Your task to perform on an android device: delete location history Image 0: 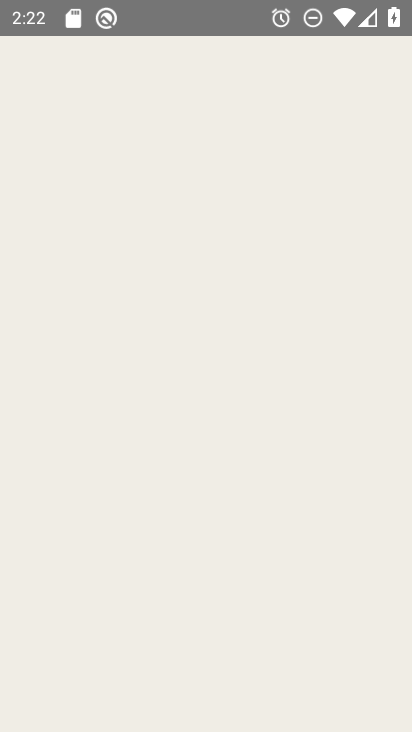
Step 0: press home button
Your task to perform on an android device: delete location history Image 1: 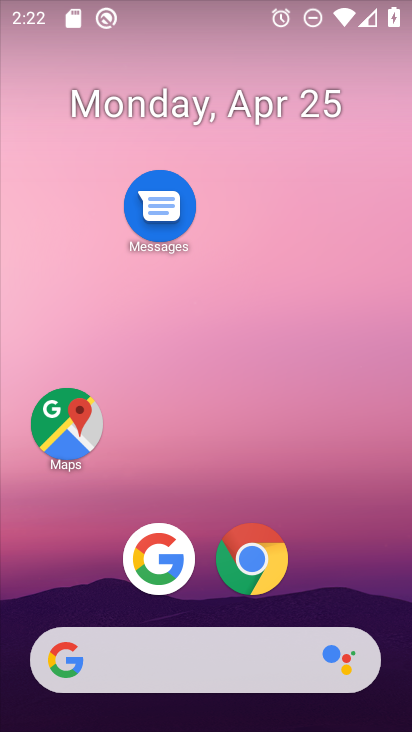
Step 1: drag from (203, 579) to (270, 260)
Your task to perform on an android device: delete location history Image 2: 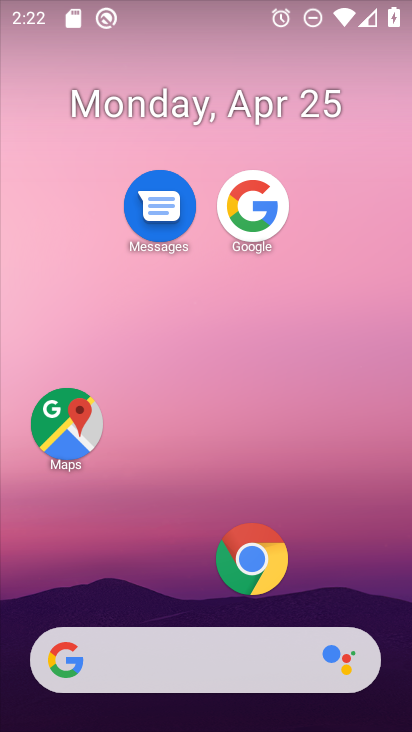
Step 2: drag from (183, 551) to (221, 121)
Your task to perform on an android device: delete location history Image 3: 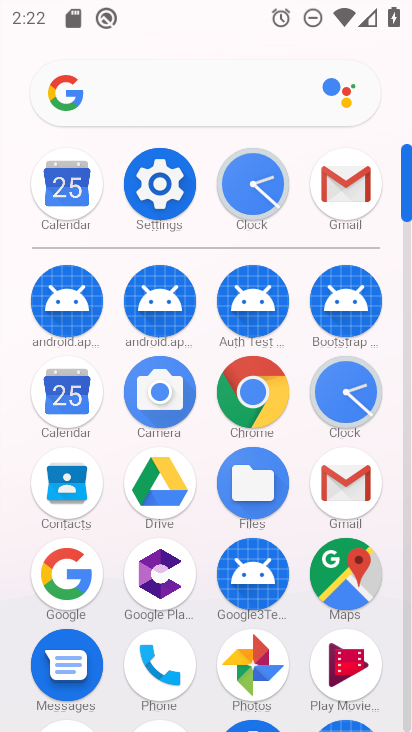
Step 3: click (156, 185)
Your task to perform on an android device: delete location history Image 4: 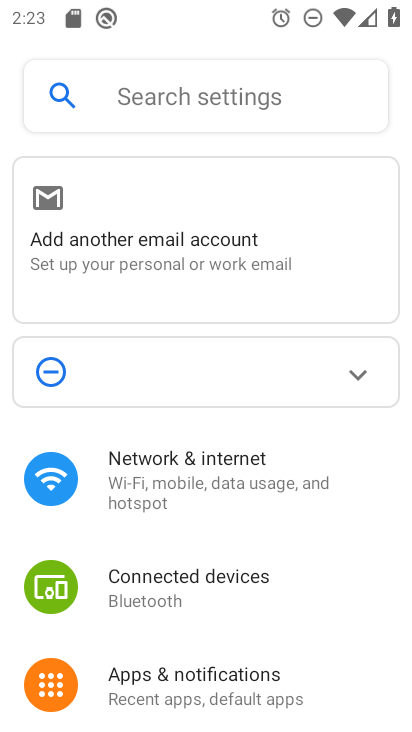
Step 4: drag from (331, 603) to (360, 222)
Your task to perform on an android device: delete location history Image 5: 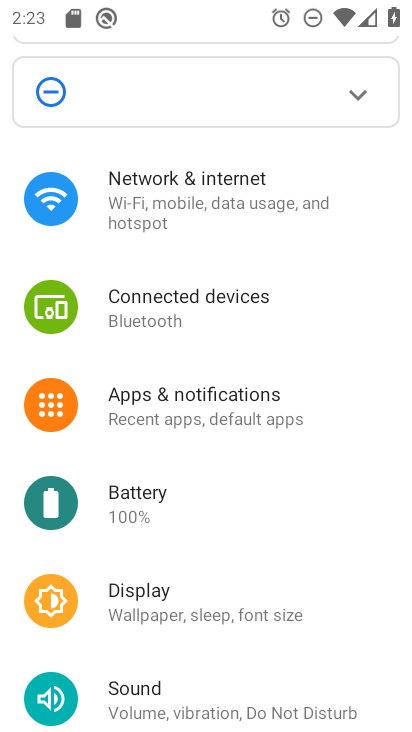
Step 5: drag from (265, 576) to (286, 143)
Your task to perform on an android device: delete location history Image 6: 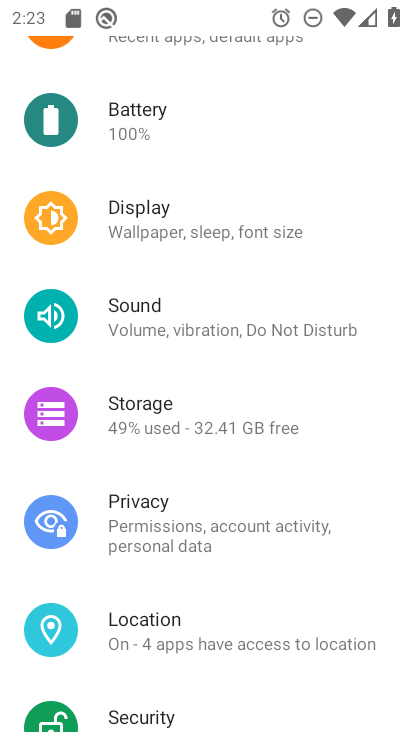
Step 6: click (152, 633)
Your task to perform on an android device: delete location history Image 7: 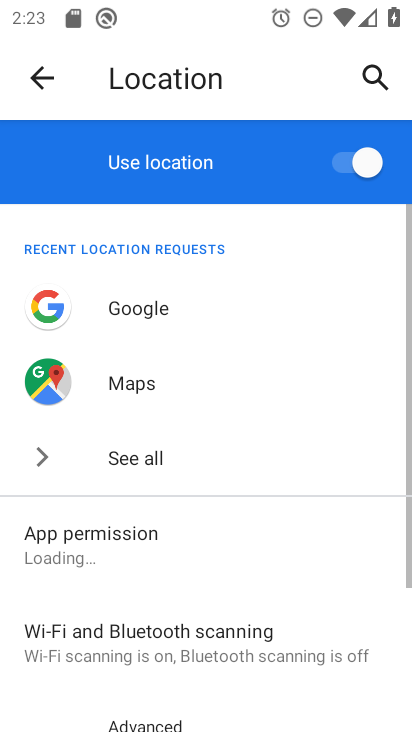
Step 7: drag from (284, 611) to (278, 100)
Your task to perform on an android device: delete location history Image 8: 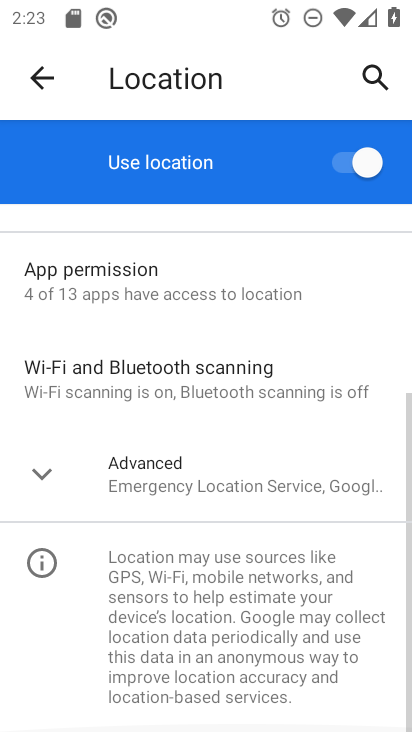
Step 8: click (145, 490)
Your task to perform on an android device: delete location history Image 9: 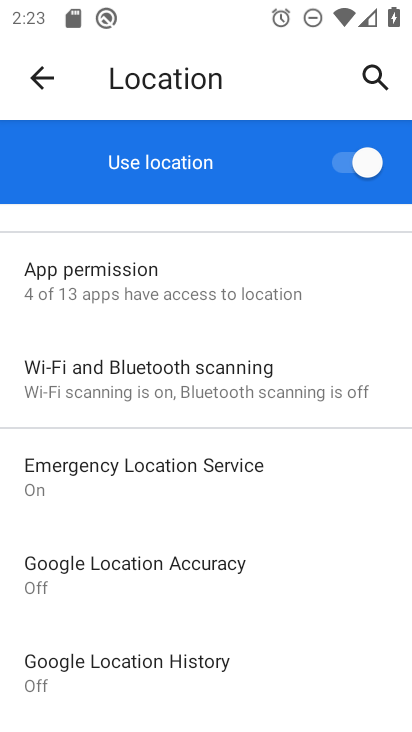
Step 9: click (179, 671)
Your task to perform on an android device: delete location history Image 10: 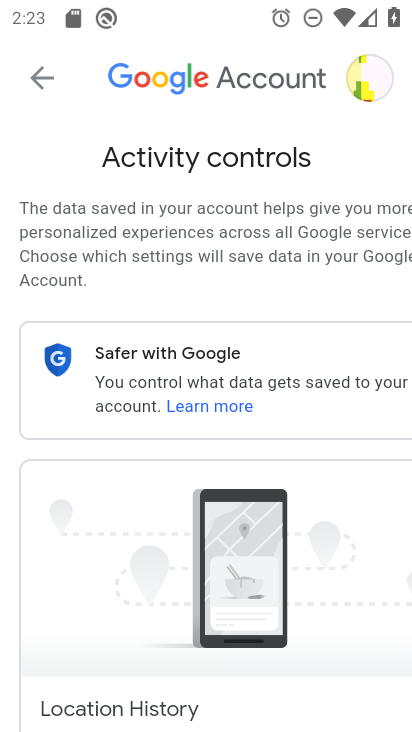
Step 10: drag from (223, 613) to (261, 158)
Your task to perform on an android device: delete location history Image 11: 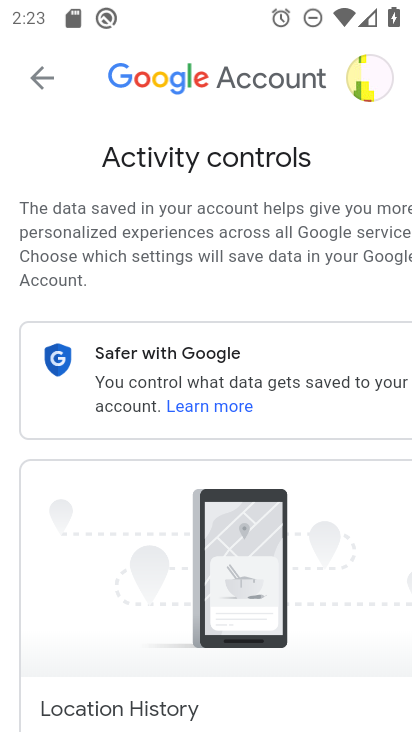
Step 11: drag from (232, 658) to (214, 129)
Your task to perform on an android device: delete location history Image 12: 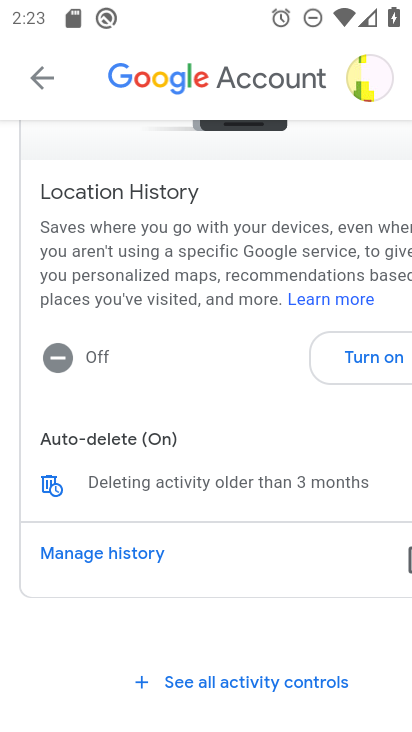
Step 12: click (47, 483)
Your task to perform on an android device: delete location history Image 13: 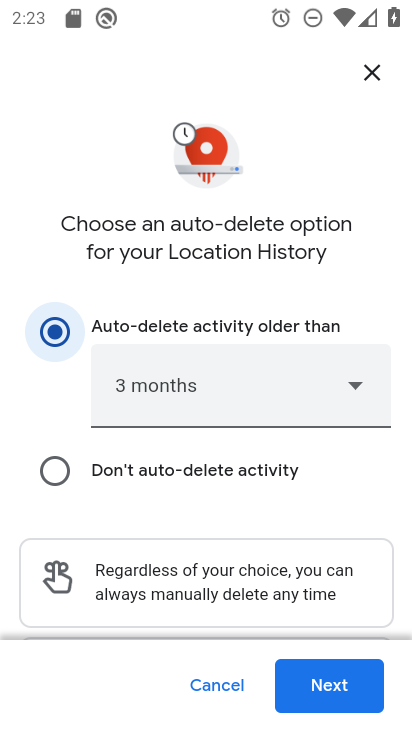
Step 13: click (313, 679)
Your task to perform on an android device: delete location history Image 14: 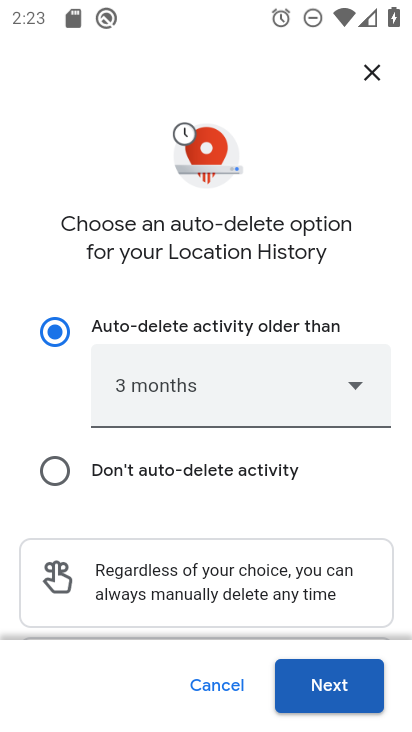
Step 14: click (335, 683)
Your task to perform on an android device: delete location history Image 15: 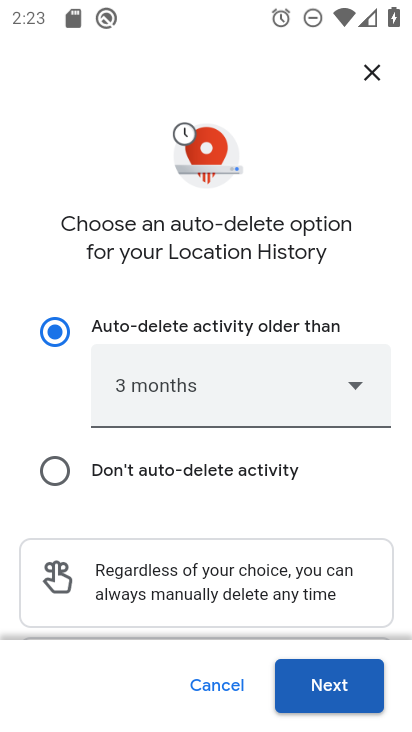
Step 15: click (319, 680)
Your task to perform on an android device: delete location history Image 16: 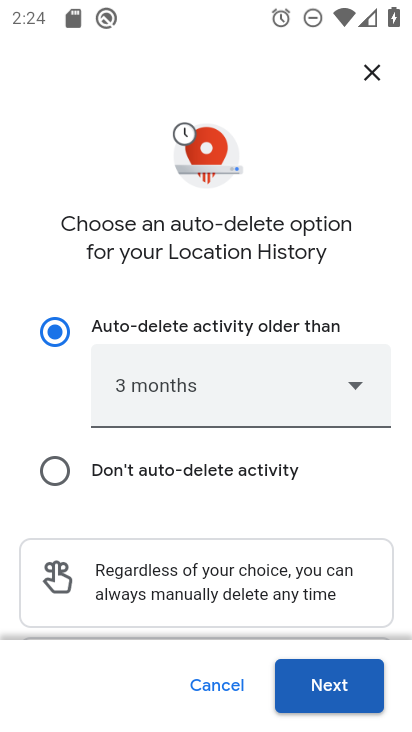
Step 16: click (318, 683)
Your task to perform on an android device: delete location history Image 17: 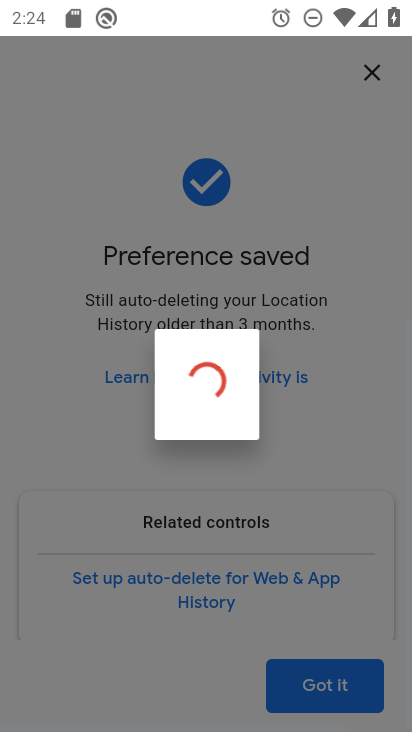
Step 17: task complete